Your task to perform on an android device: change text size in settings app Image 0: 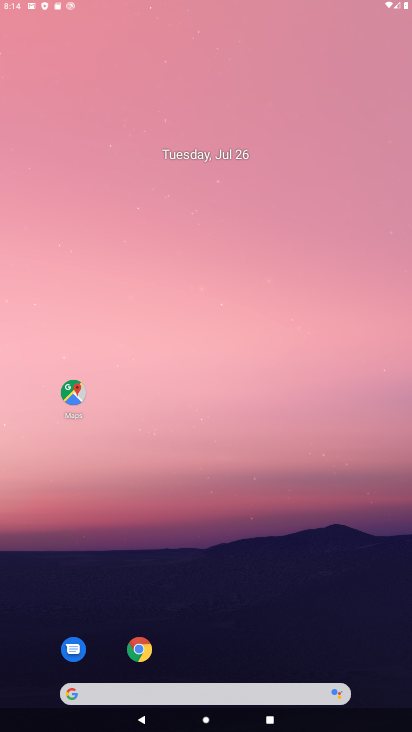
Step 0: click (235, 376)
Your task to perform on an android device: change text size in settings app Image 1: 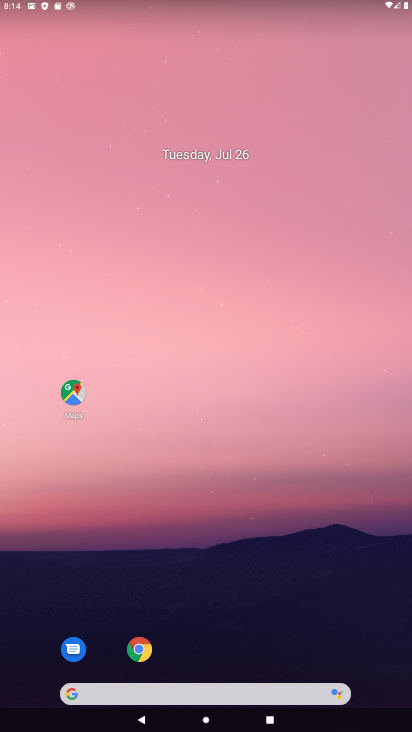
Step 1: drag from (179, 625) to (235, 189)
Your task to perform on an android device: change text size in settings app Image 2: 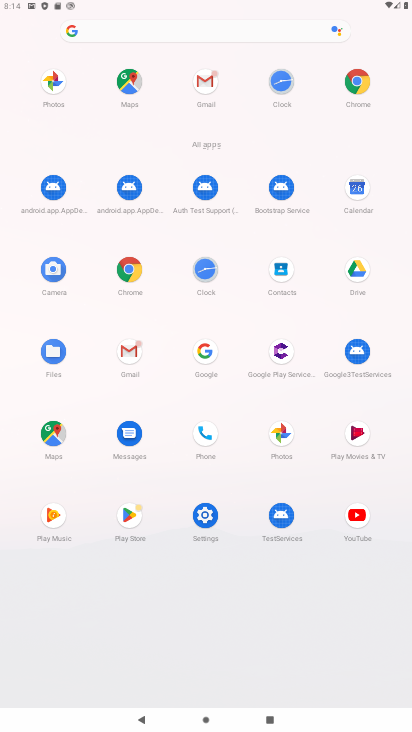
Step 2: click (133, 513)
Your task to perform on an android device: change text size in settings app Image 3: 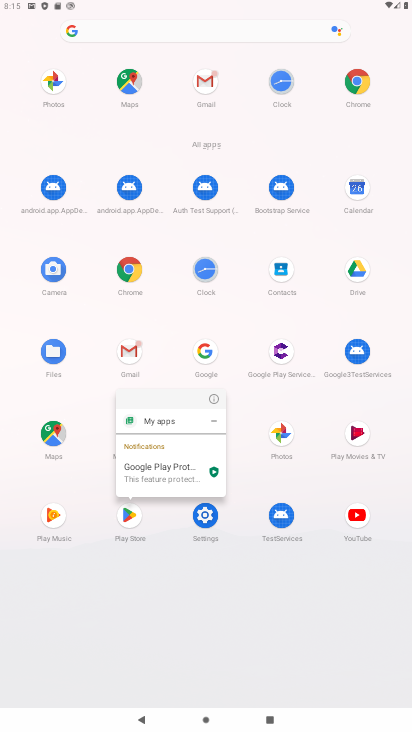
Step 3: click (186, 515)
Your task to perform on an android device: change text size in settings app Image 4: 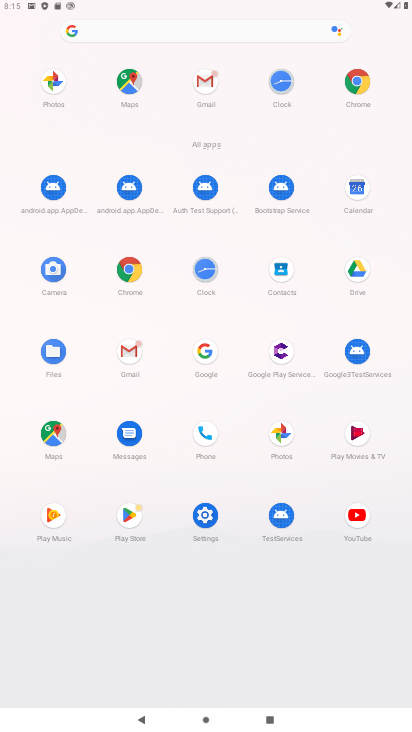
Step 4: click (207, 519)
Your task to perform on an android device: change text size in settings app Image 5: 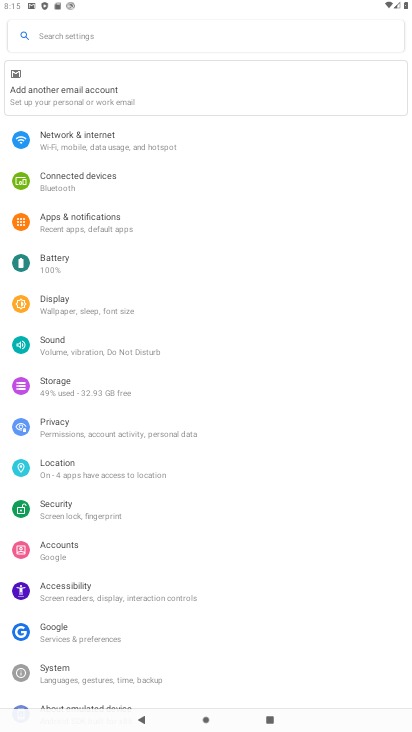
Step 5: click (95, 306)
Your task to perform on an android device: change text size in settings app Image 6: 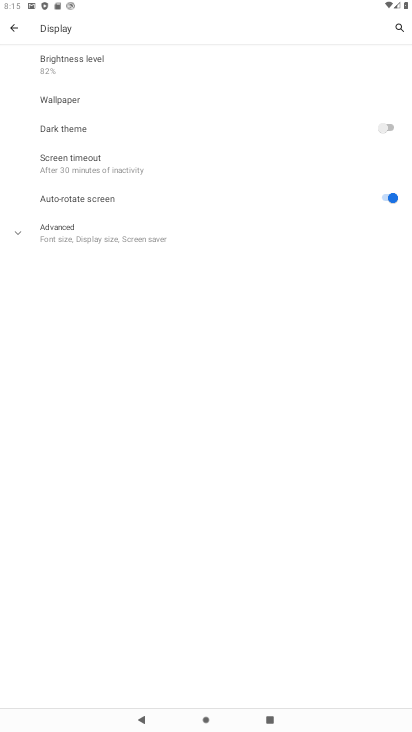
Step 6: click (69, 223)
Your task to perform on an android device: change text size in settings app Image 7: 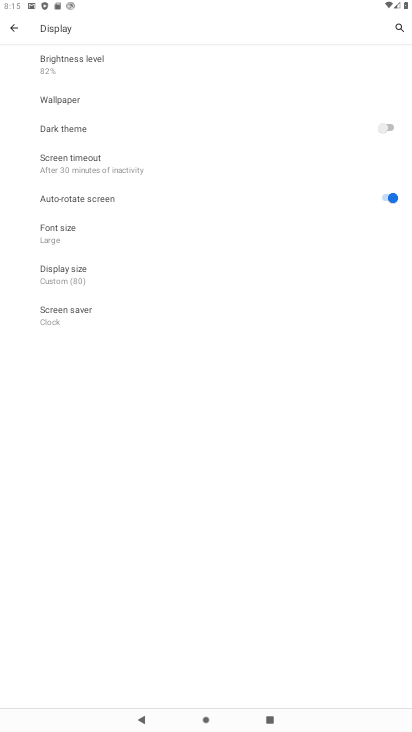
Step 7: click (95, 239)
Your task to perform on an android device: change text size in settings app Image 8: 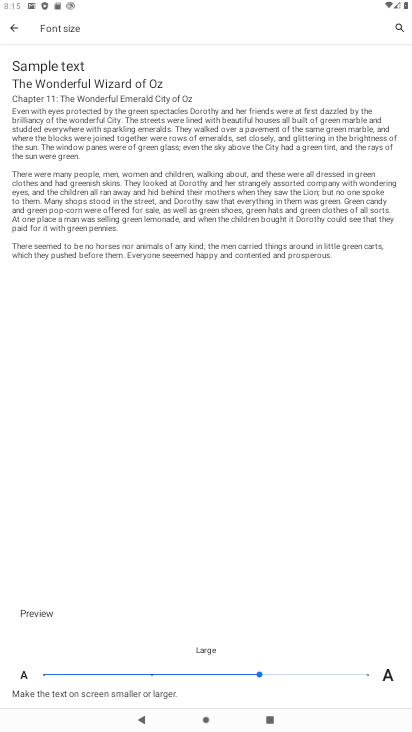
Step 8: click (359, 670)
Your task to perform on an android device: change text size in settings app Image 9: 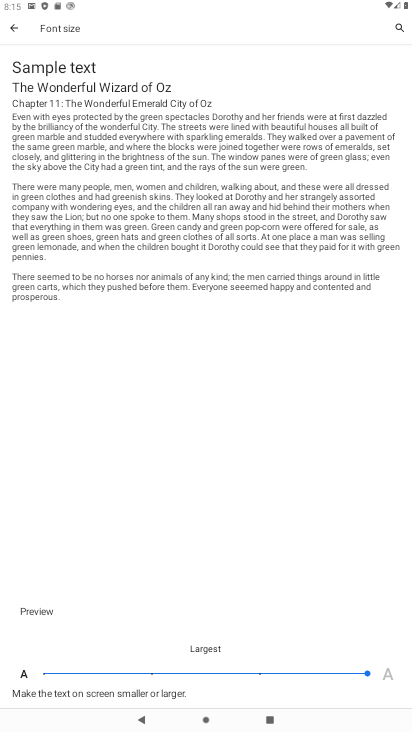
Step 9: task complete